Your task to perform on an android device: check battery use Image 0: 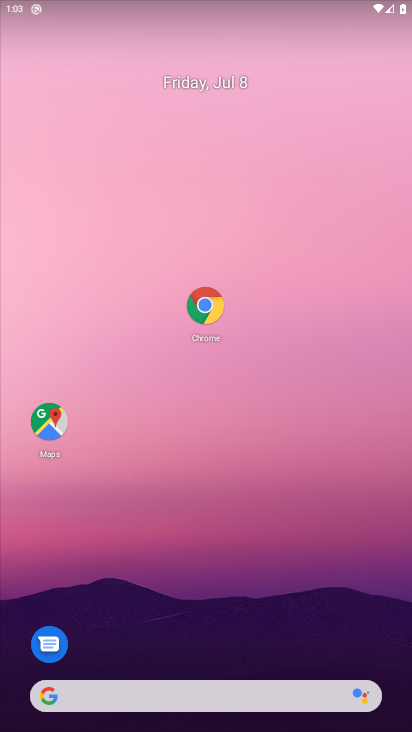
Step 0: drag from (193, 665) to (261, 246)
Your task to perform on an android device: check battery use Image 1: 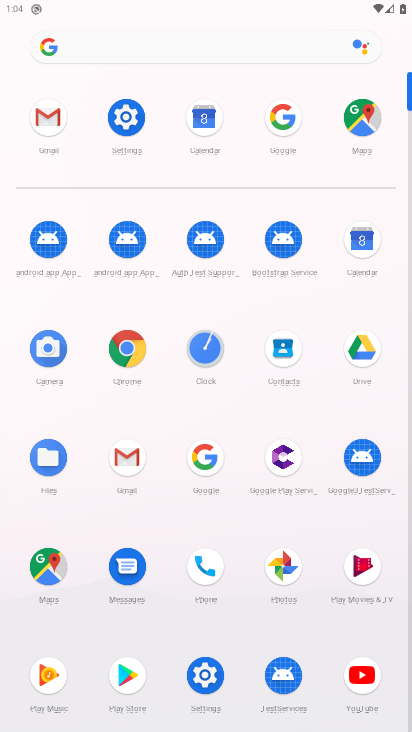
Step 1: click (122, 117)
Your task to perform on an android device: check battery use Image 2: 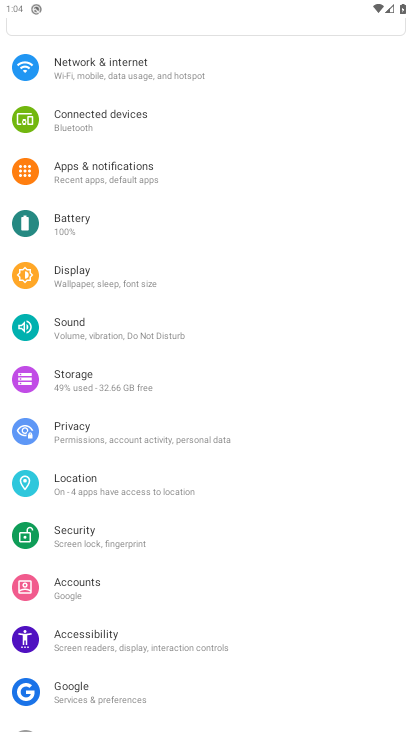
Step 2: click (81, 226)
Your task to perform on an android device: check battery use Image 3: 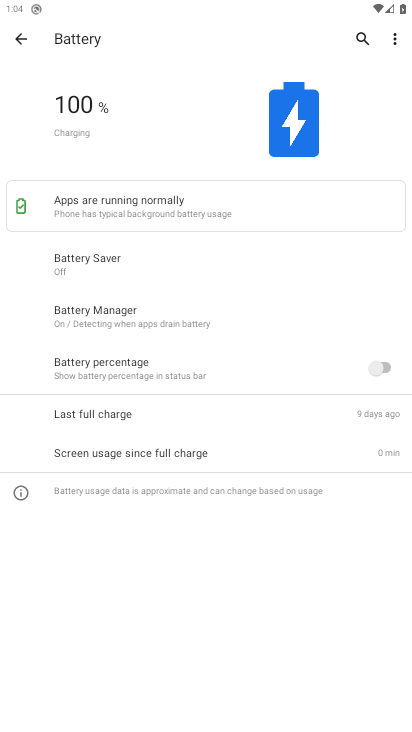
Step 3: click (392, 44)
Your task to perform on an android device: check battery use Image 4: 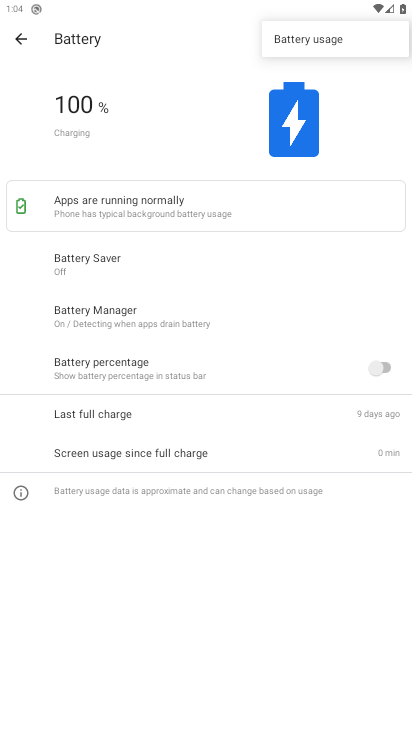
Step 4: click (347, 34)
Your task to perform on an android device: check battery use Image 5: 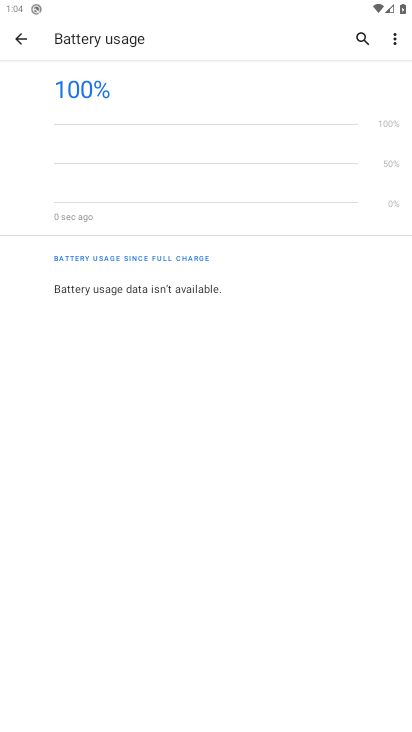
Step 5: task complete